Your task to perform on an android device: open app "Lyft - Rideshare, Bikes, Scooters & Transit" (install if not already installed), go to login, and select forgot password Image 0: 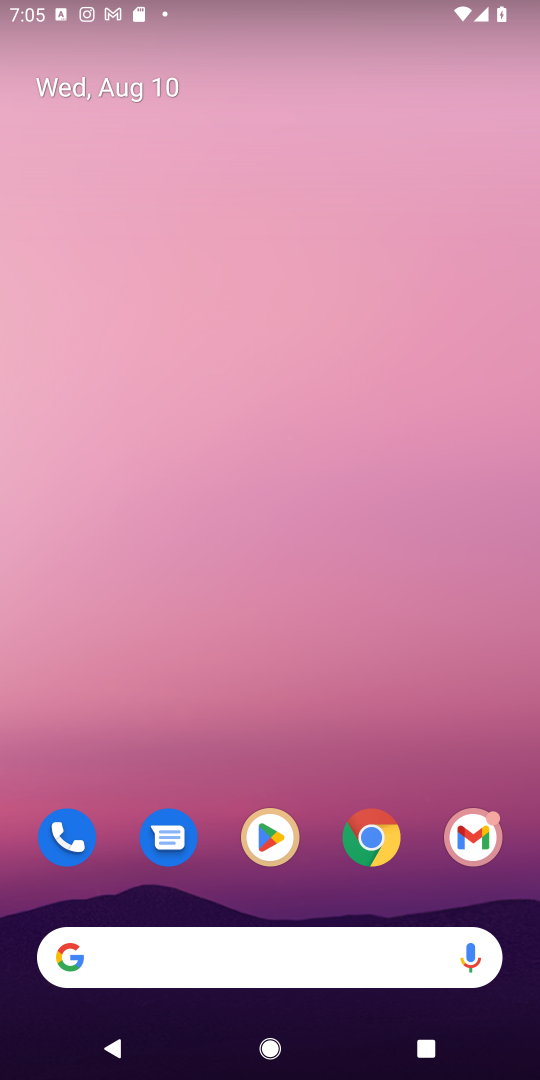
Step 0: click (269, 833)
Your task to perform on an android device: open app "Lyft - Rideshare, Bikes, Scooters & Transit" (install if not already installed), go to login, and select forgot password Image 1: 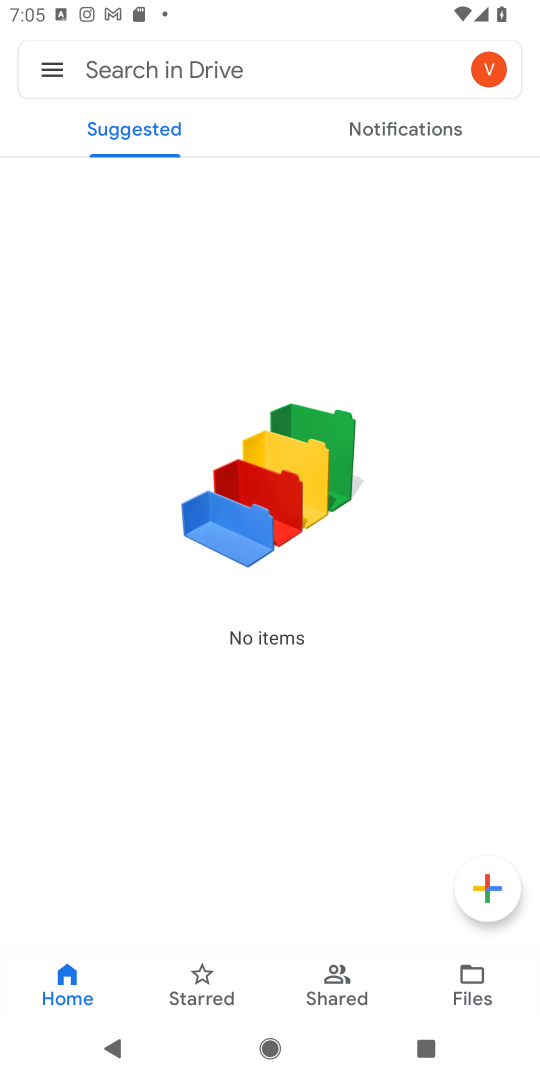
Step 1: press home button
Your task to perform on an android device: open app "Lyft - Rideshare, Bikes, Scooters & Transit" (install if not already installed), go to login, and select forgot password Image 2: 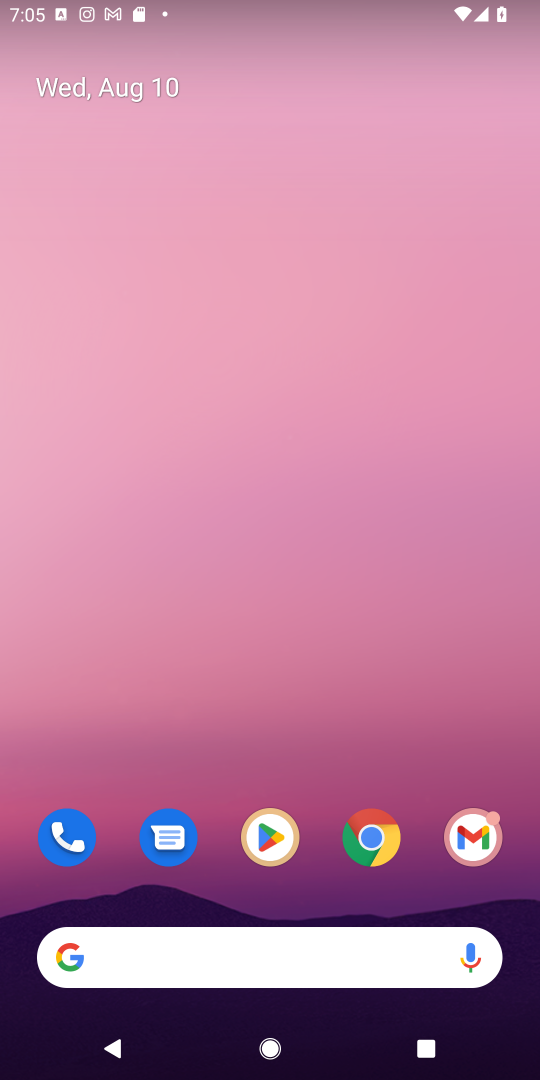
Step 2: click (273, 832)
Your task to perform on an android device: open app "Lyft - Rideshare, Bikes, Scooters & Transit" (install if not already installed), go to login, and select forgot password Image 3: 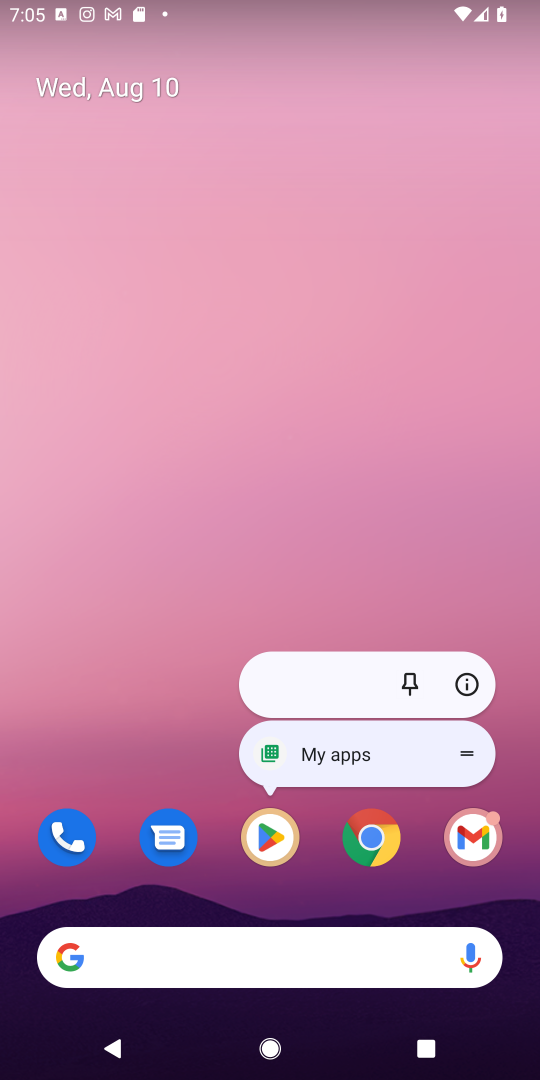
Step 3: click (273, 834)
Your task to perform on an android device: open app "Lyft - Rideshare, Bikes, Scooters & Transit" (install if not already installed), go to login, and select forgot password Image 4: 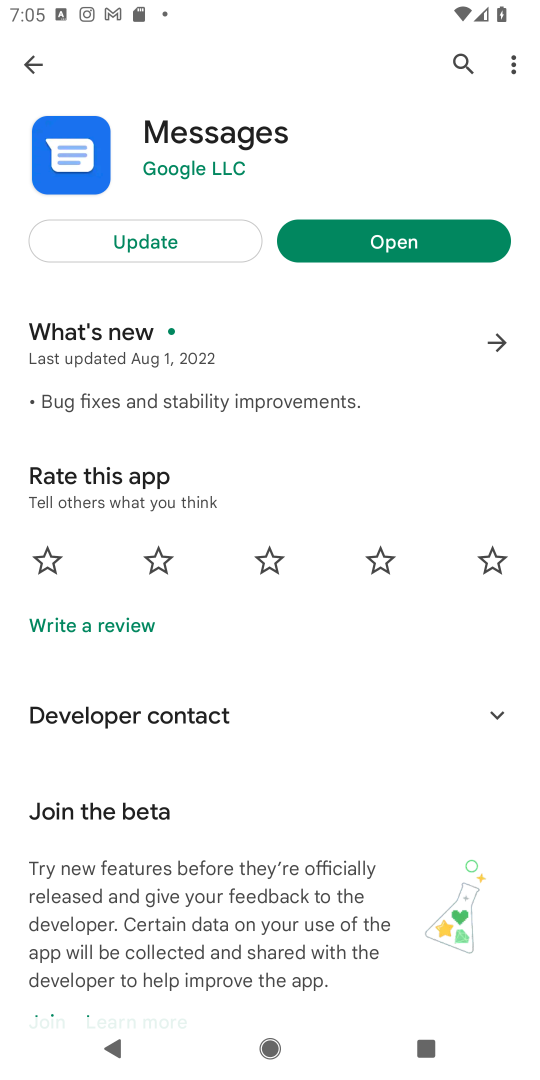
Step 4: click (462, 50)
Your task to perform on an android device: open app "Lyft - Rideshare, Bikes, Scooters & Transit" (install if not already installed), go to login, and select forgot password Image 5: 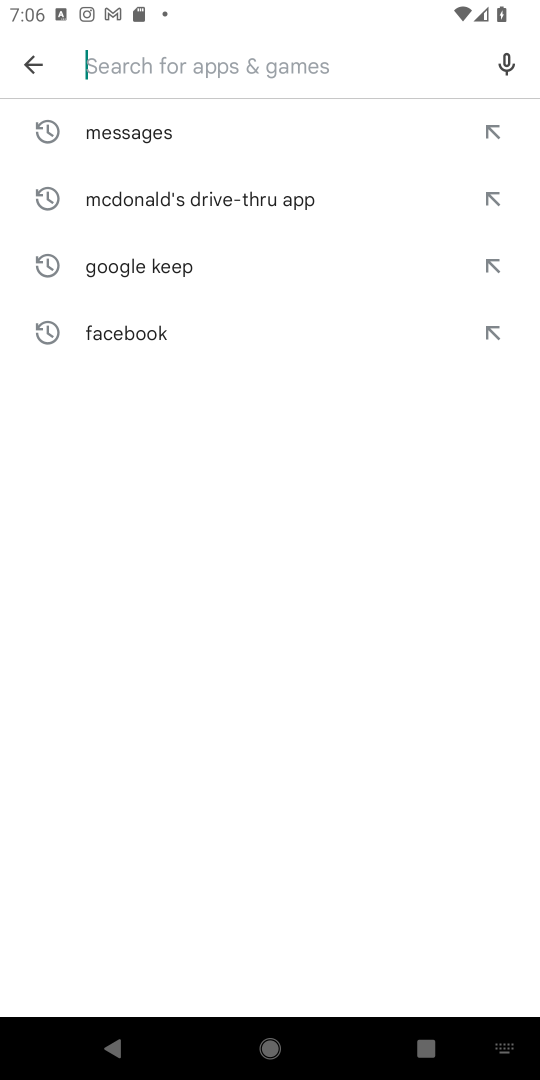
Step 5: type "Lyft - Rideshare, Bikes, Scooters & Transit"
Your task to perform on an android device: open app "Lyft - Rideshare, Bikes, Scooters & Transit" (install if not already installed), go to login, and select forgot password Image 6: 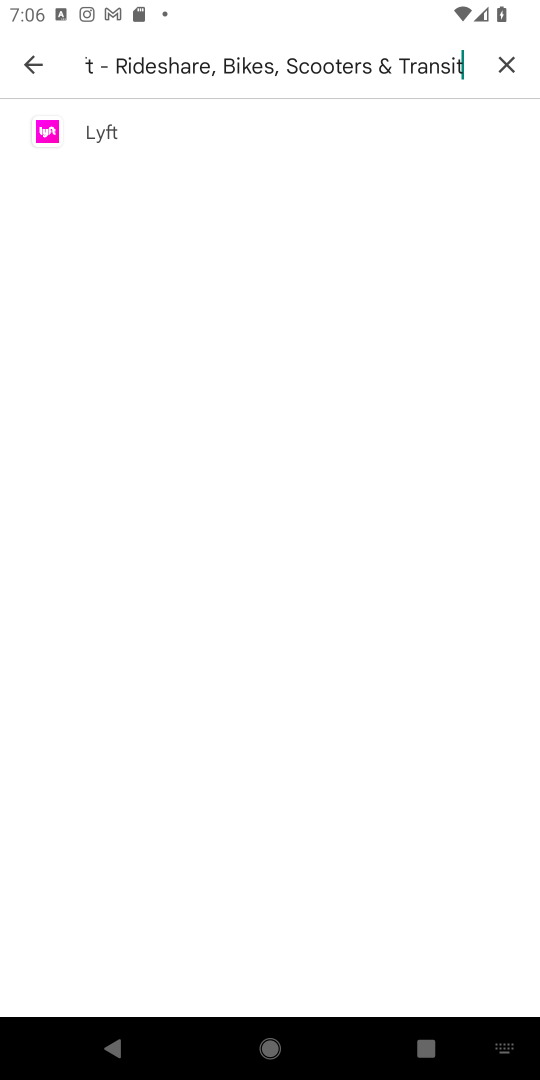
Step 6: click (152, 130)
Your task to perform on an android device: open app "Lyft - Rideshare, Bikes, Scooters & Transit" (install if not already installed), go to login, and select forgot password Image 7: 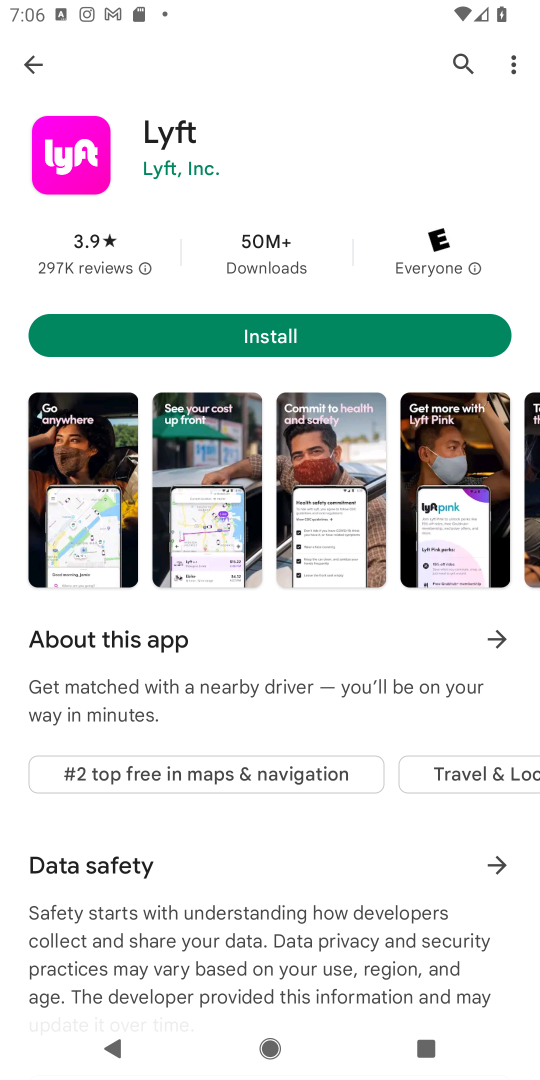
Step 7: click (276, 330)
Your task to perform on an android device: open app "Lyft - Rideshare, Bikes, Scooters & Transit" (install if not already installed), go to login, and select forgot password Image 8: 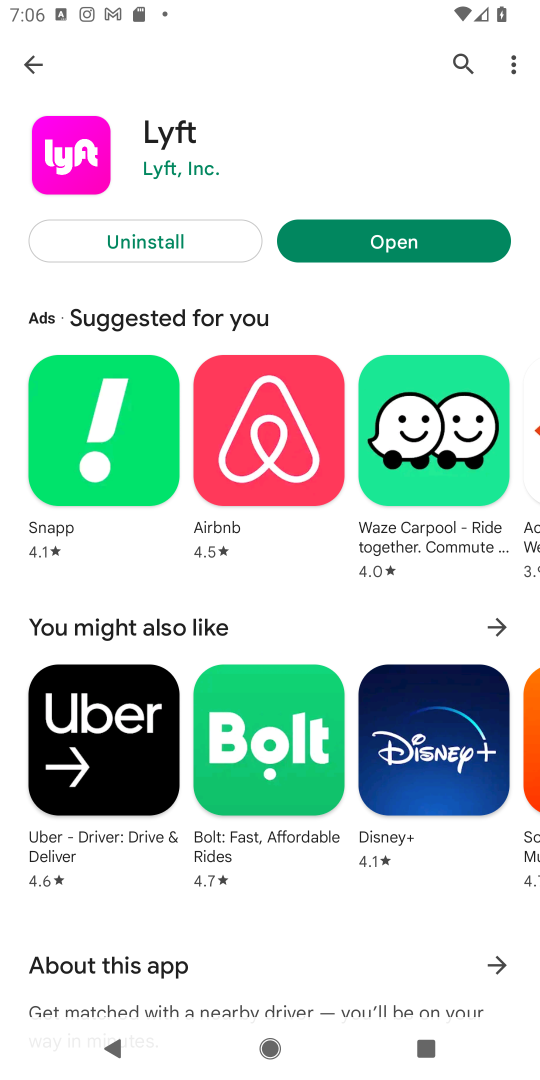
Step 8: click (439, 242)
Your task to perform on an android device: open app "Lyft - Rideshare, Bikes, Scooters & Transit" (install if not already installed), go to login, and select forgot password Image 9: 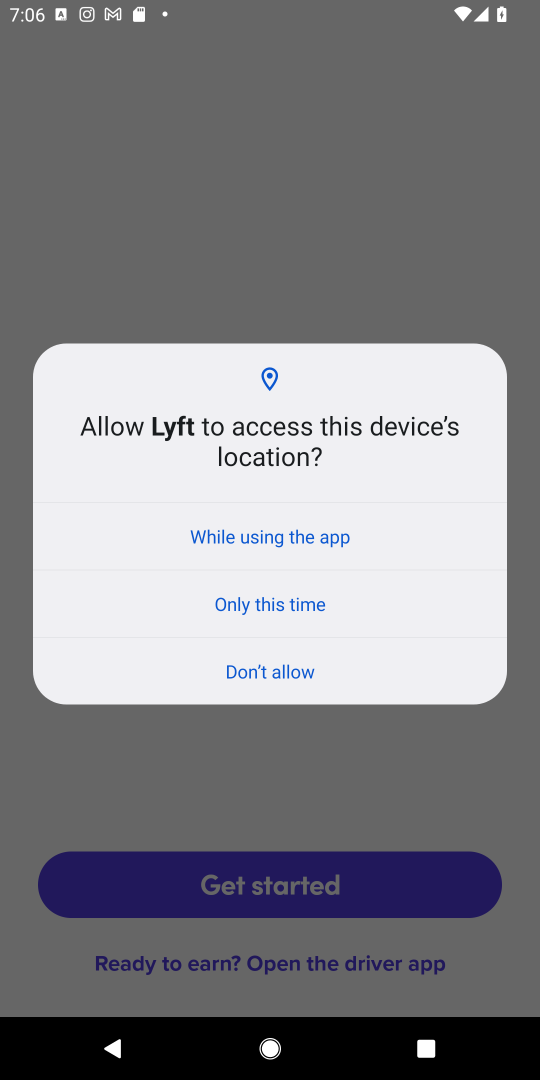
Step 9: click (328, 600)
Your task to perform on an android device: open app "Lyft - Rideshare, Bikes, Scooters & Transit" (install if not already installed), go to login, and select forgot password Image 10: 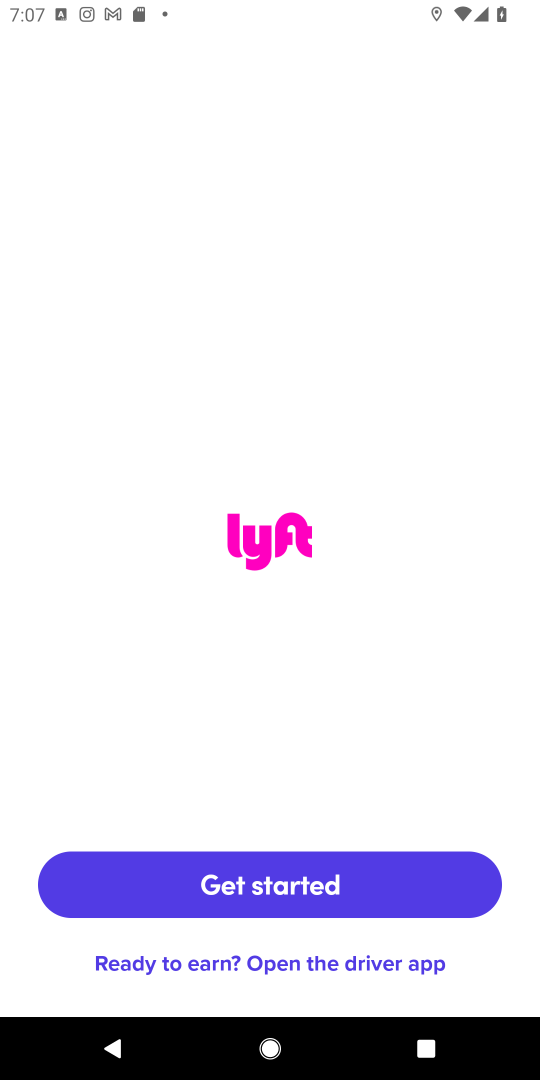
Step 10: click (352, 869)
Your task to perform on an android device: open app "Lyft - Rideshare, Bikes, Scooters & Transit" (install if not already installed), go to login, and select forgot password Image 11: 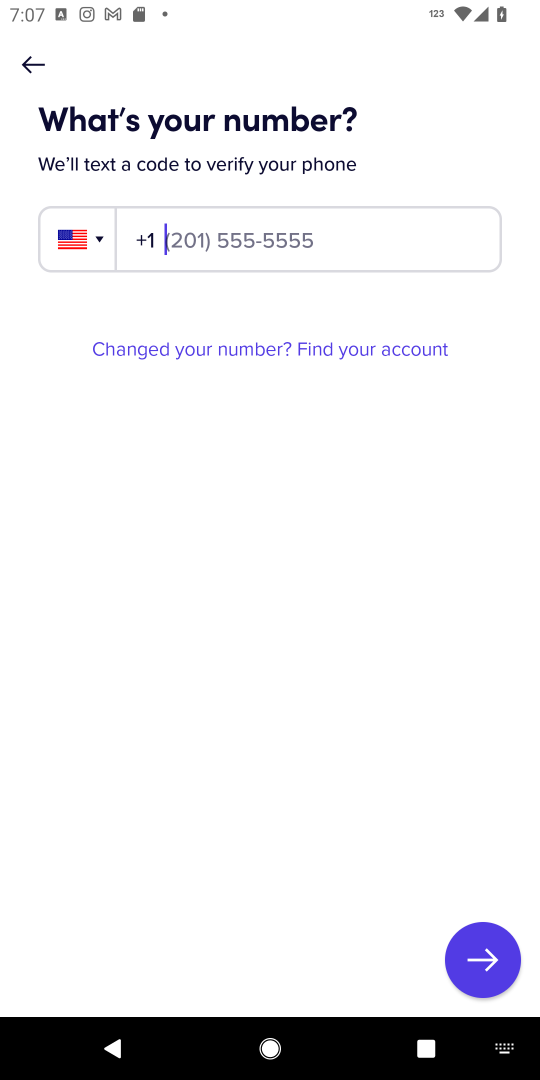
Step 11: task complete